Your task to perform on an android device: open a bookmark in the chrome app Image 0: 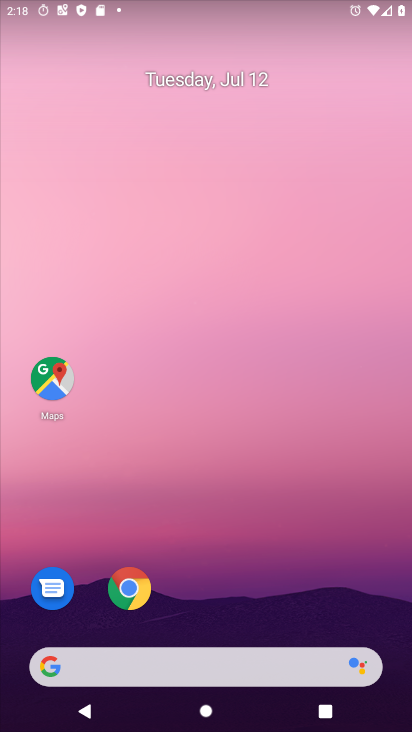
Step 0: click (214, 139)
Your task to perform on an android device: open a bookmark in the chrome app Image 1: 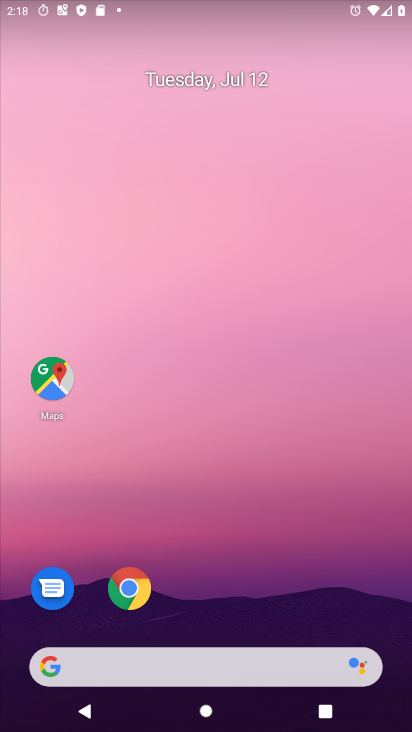
Step 1: drag from (193, 628) to (216, 48)
Your task to perform on an android device: open a bookmark in the chrome app Image 2: 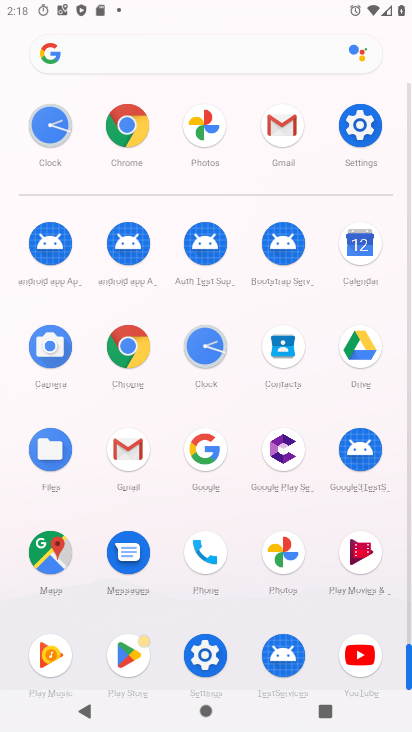
Step 2: click (123, 340)
Your task to perform on an android device: open a bookmark in the chrome app Image 3: 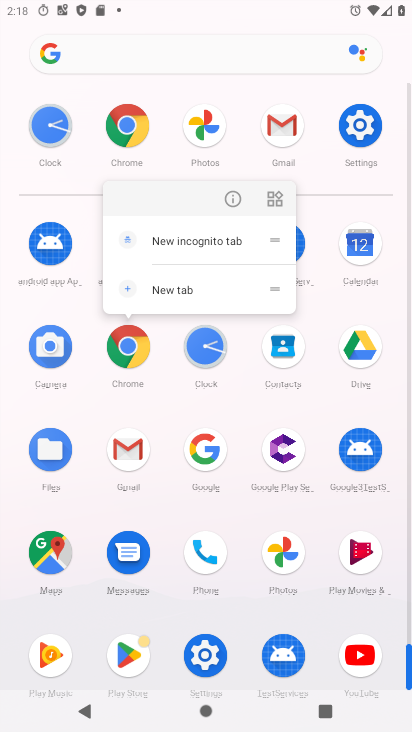
Step 3: click (228, 209)
Your task to perform on an android device: open a bookmark in the chrome app Image 4: 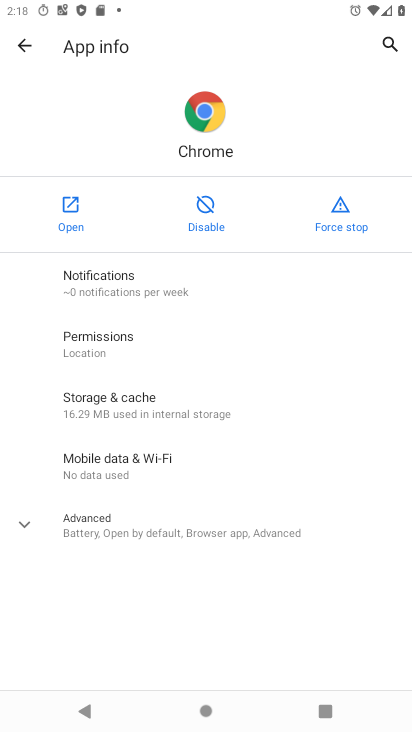
Step 4: drag from (148, 540) to (166, 191)
Your task to perform on an android device: open a bookmark in the chrome app Image 5: 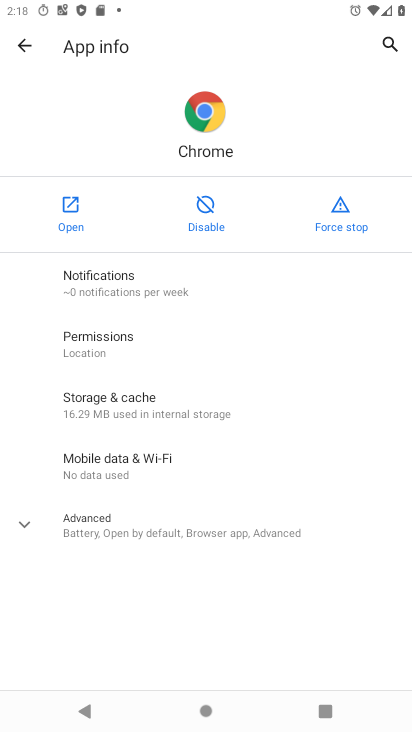
Step 5: click (68, 217)
Your task to perform on an android device: open a bookmark in the chrome app Image 6: 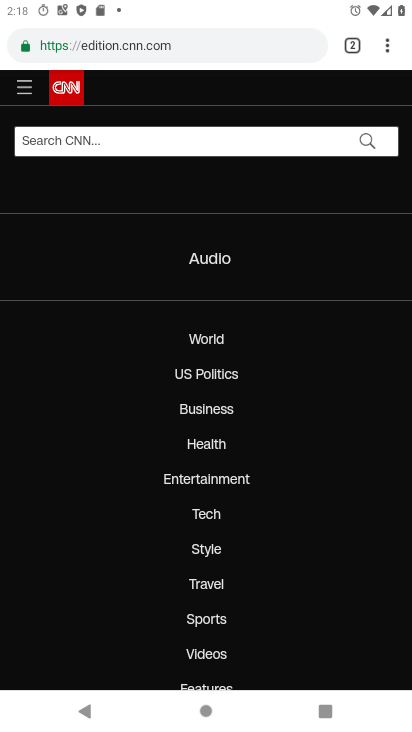
Step 6: click (384, 52)
Your task to perform on an android device: open a bookmark in the chrome app Image 7: 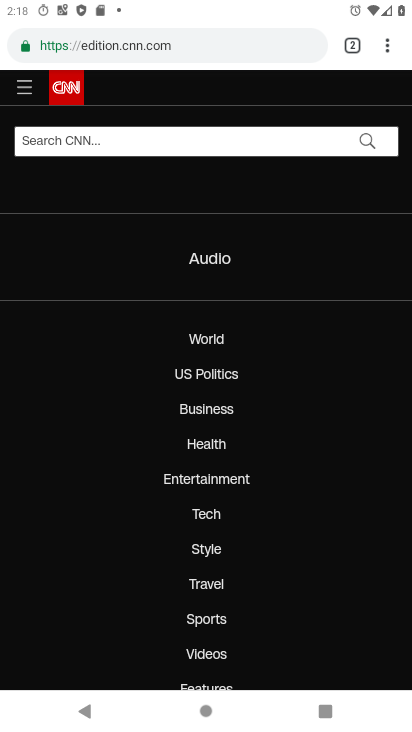
Step 7: task complete